Your task to perform on an android device: turn on the 12-hour format for clock Image 0: 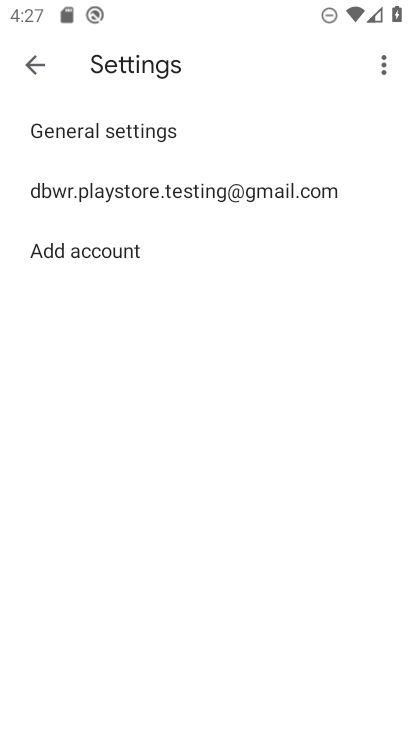
Step 0: press home button
Your task to perform on an android device: turn on the 12-hour format for clock Image 1: 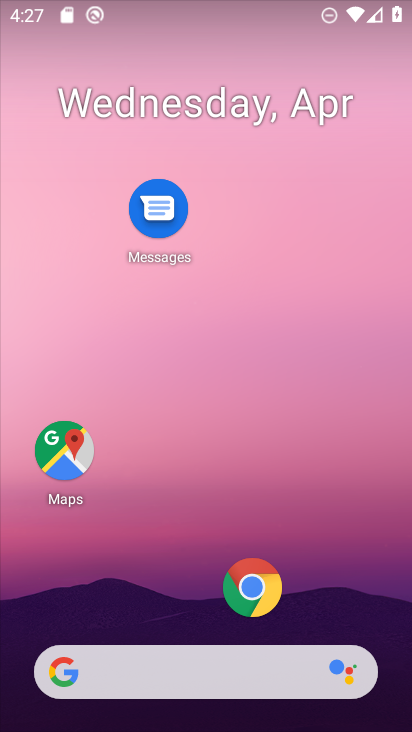
Step 1: drag from (191, 604) to (229, 125)
Your task to perform on an android device: turn on the 12-hour format for clock Image 2: 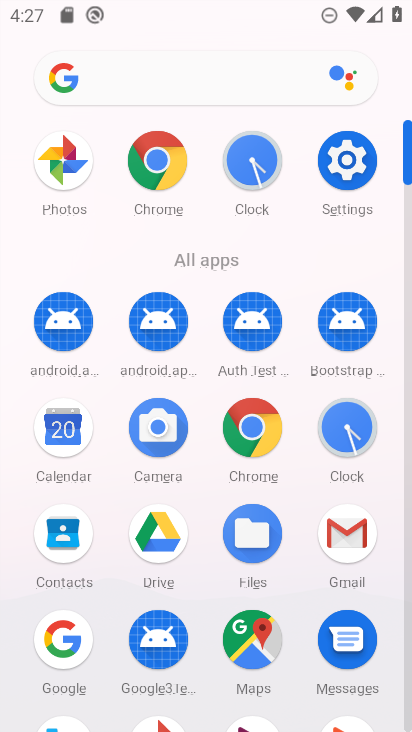
Step 2: click (333, 421)
Your task to perform on an android device: turn on the 12-hour format for clock Image 3: 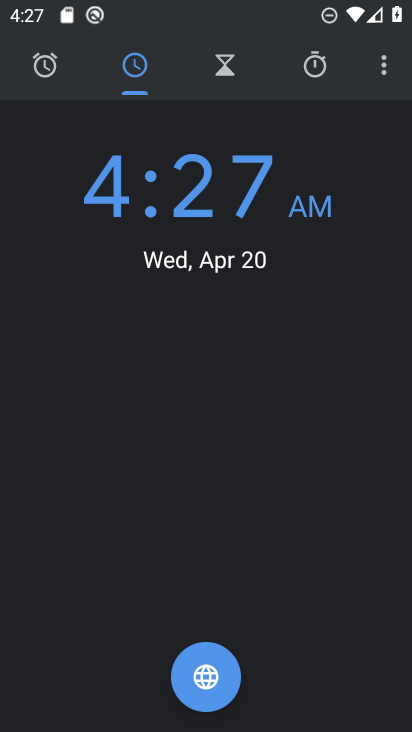
Step 3: click (382, 62)
Your task to perform on an android device: turn on the 12-hour format for clock Image 4: 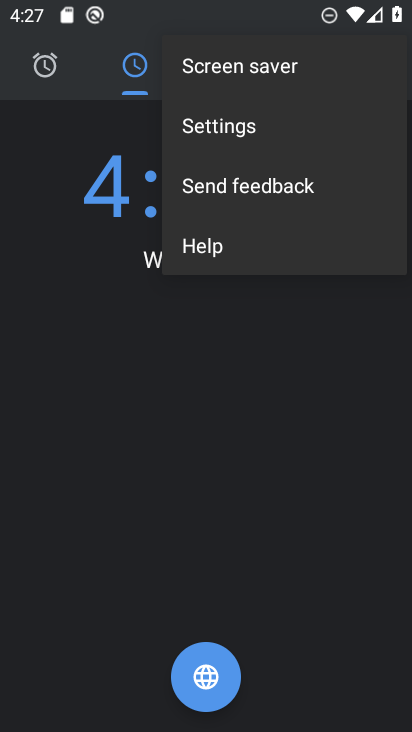
Step 4: click (271, 123)
Your task to perform on an android device: turn on the 12-hour format for clock Image 5: 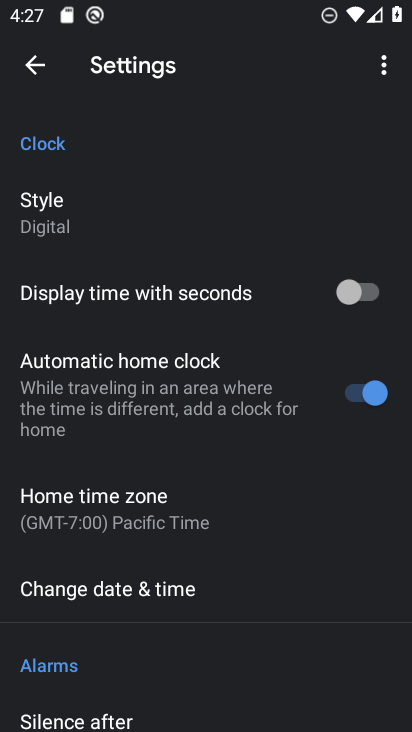
Step 5: drag from (218, 654) to (232, 355)
Your task to perform on an android device: turn on the 12-hour format for clock Image 6: 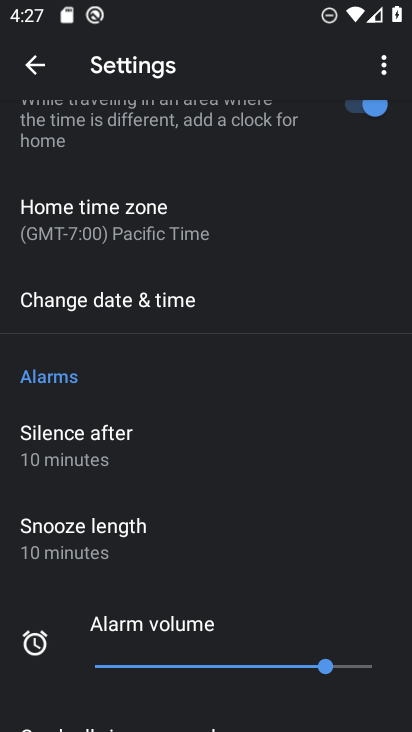
Step 6: drag from (252, 547) to (250, 294)
Your task to perform on an android device: turn on the 12-hour format for clock Image 7: 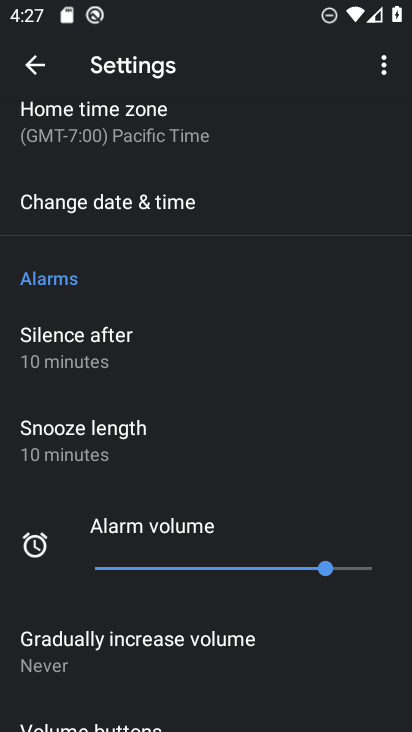
Step 7: click (256, 213)
Your task to perform on an android device: turn on the 12-hour format for clock Image 8: 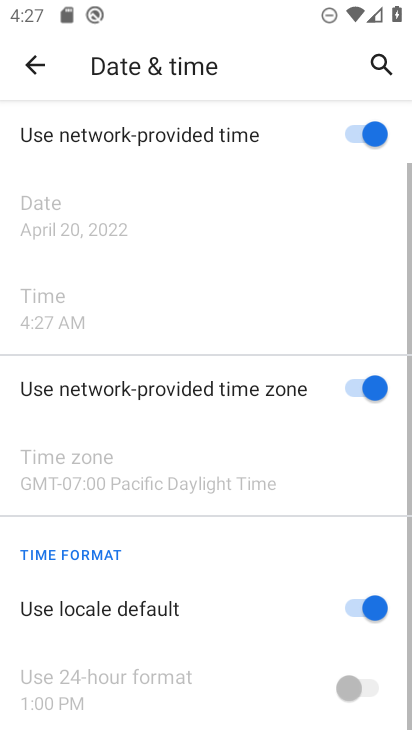
Step 8: drag from (297, 523) to (309, 237)
Your task to perform on an android device: turn on the 12-hour format for clock Image 9: 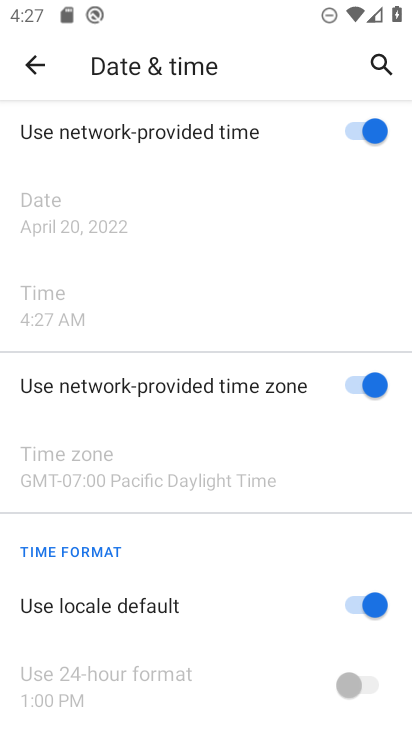
Step 9: click (346, 594)
Your task to perform on an android device: turn on the 12-hour format for clock Image 10: 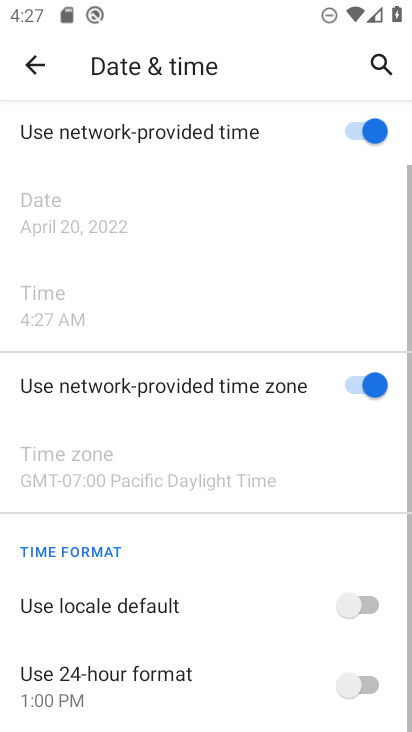
Step 10: click (367, 681)
Your task to perform on an android device: turn on the 12-hour format for clock Image 11: 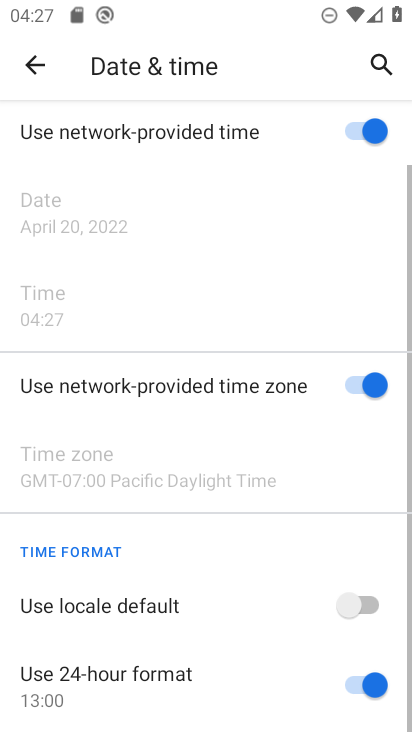
Step 11: task complete